Your task to perform on an android device: Open settings Image 0: 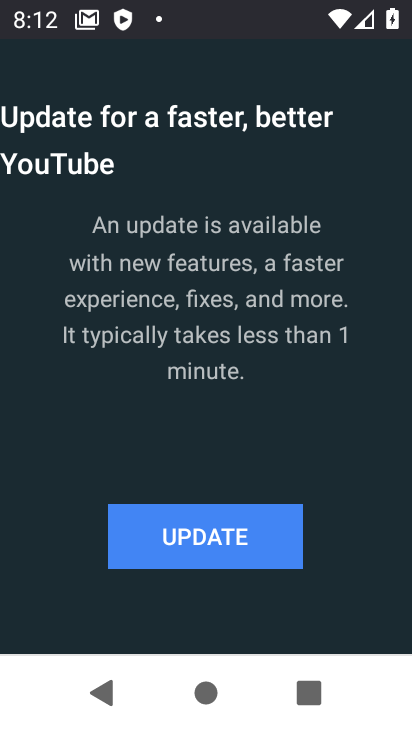
Step 0: press home button
Your task to perform on an android device: Open settings Image 1: 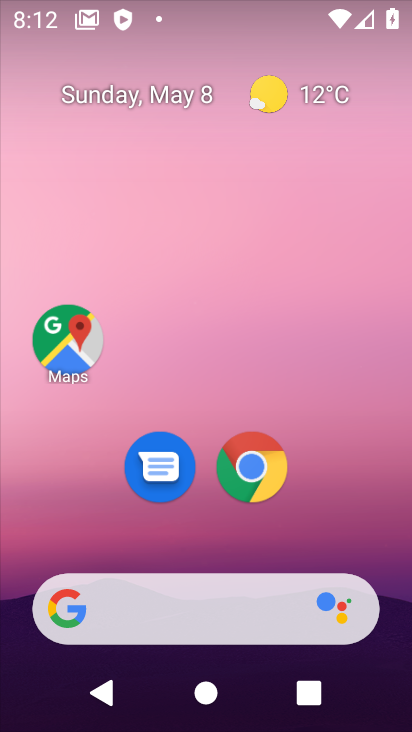
Step 1: drag from (258, 567) to (339, 62)
Your task to perform on an android device: Open settings Image 2: 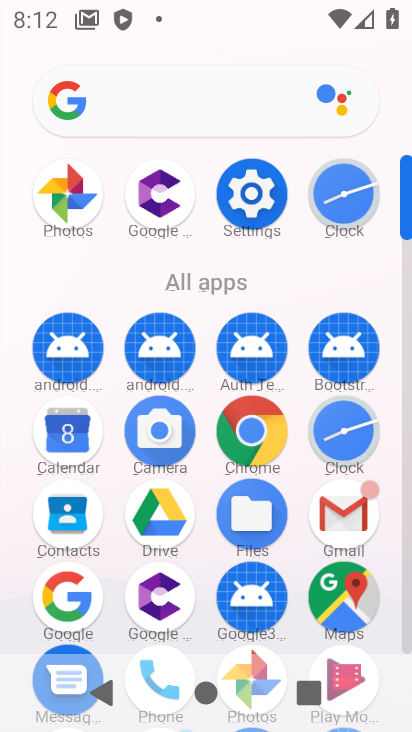
Step 2: click (253, 204)
Your task to perform on an android device: Open settings Image 3: 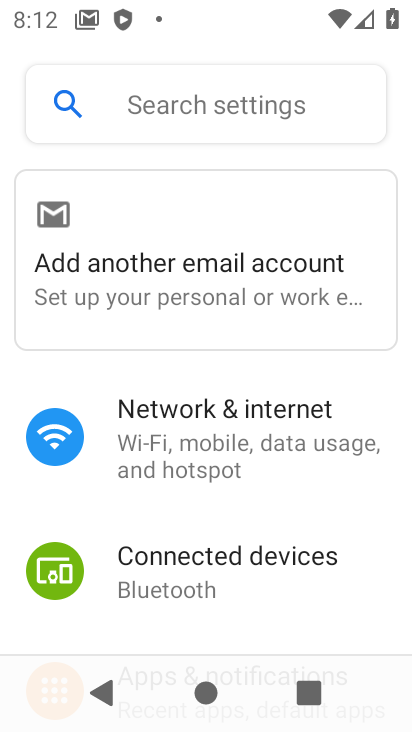
Step 3: task complete